Your task to perform on an android device: Open Youtube and go to the subscriptions tab Image 0: 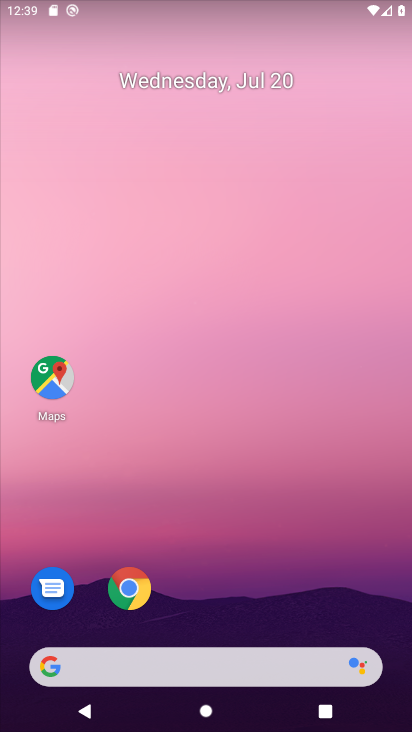
Step 0: drag from (293, 605) to (333, 185)
Your task to perform on an android device: Open Youtube and go to the subscriptions tab Image 1: 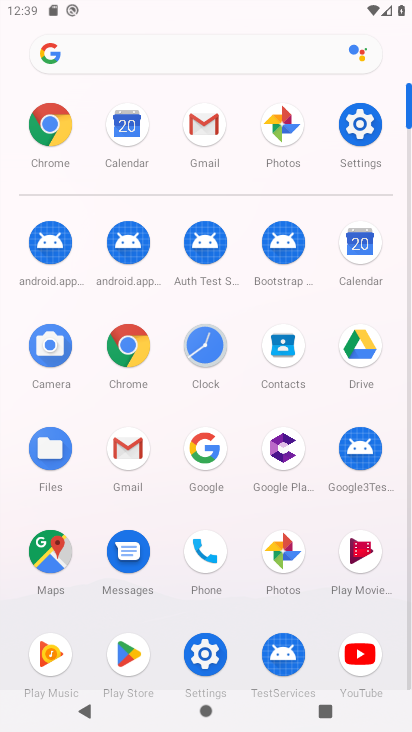
Step 1: click (359, 639)
Your task to perform on an android device: Open Youtube and go to the subscriptions tab Image 2: 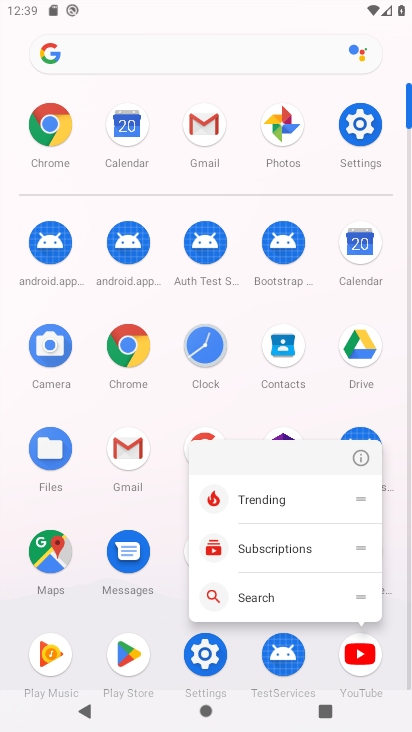
Step 2: click (373, 650)
Your task to perform on an android device: Open Youtube and go to the subscriptions tab Image 3: 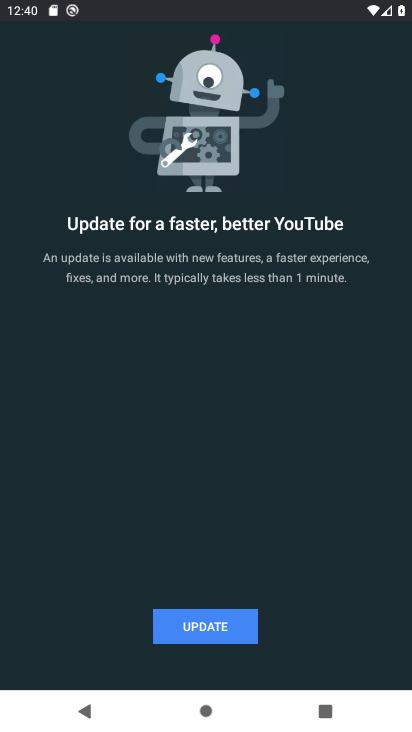
Step 3: task complete